Your task to perform on an android device: Go to notification settings Image 0: 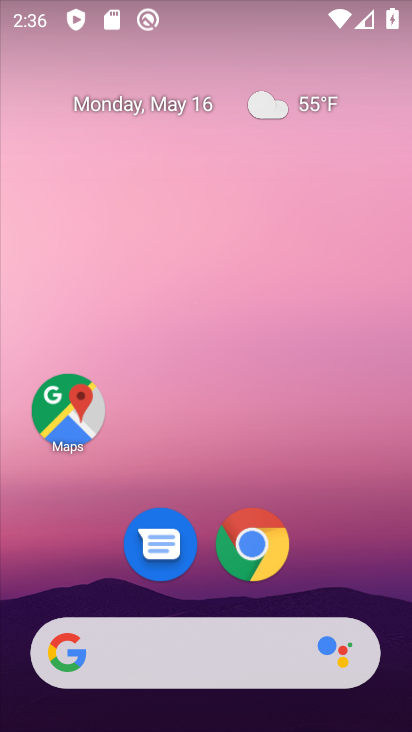
Step 0: drag from (383, 536) to (325, 113)
Your task to perform on an android device: Go to notification settings Image 1: 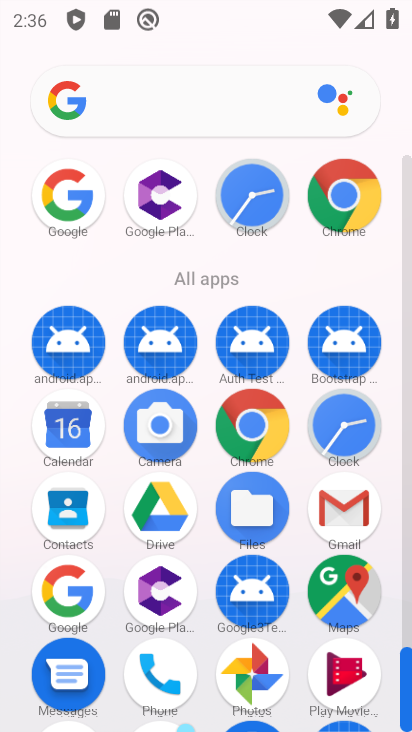
Step 1: drag from (408, 563) to (383, 190)
Your task to perform on an android device: Go to notification settings Image 2: 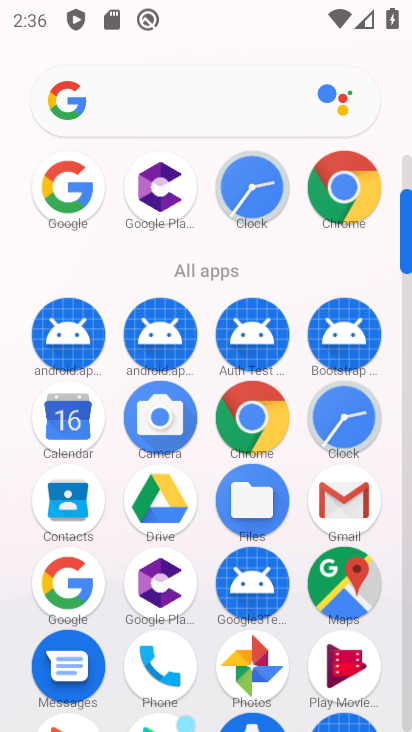
Step 2: drag from (389, 689) to (354, 413)
Your task to perform on an android device: Go to notification settings Image 3: 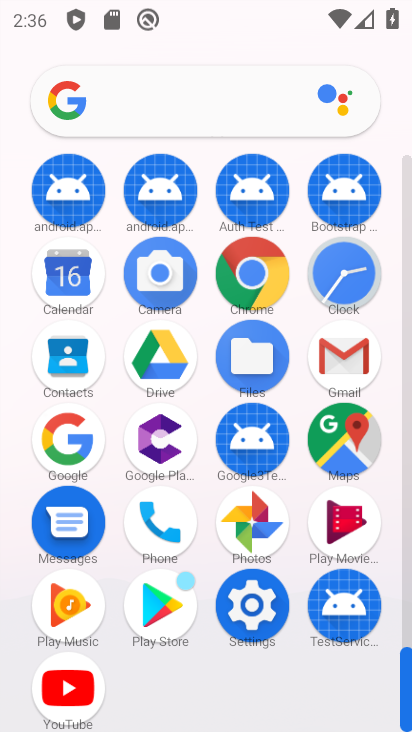
Step 3: click (270, 627)
Your task to perform on an android device: Go to notification settings Image 4: 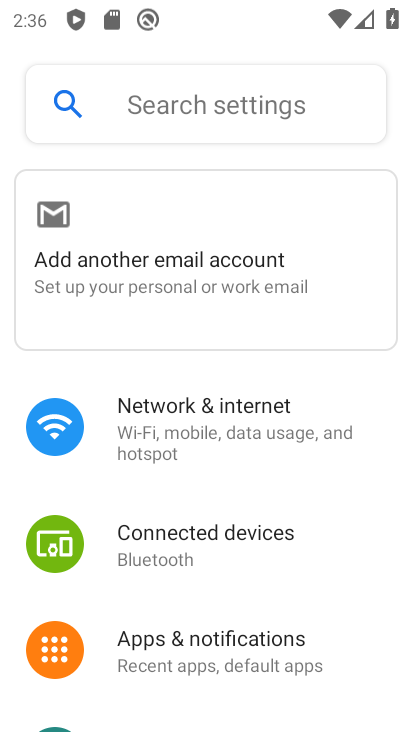
Step 4: click (251, 637)
Your task to perform on an android device: Go to notification settings Image 5: 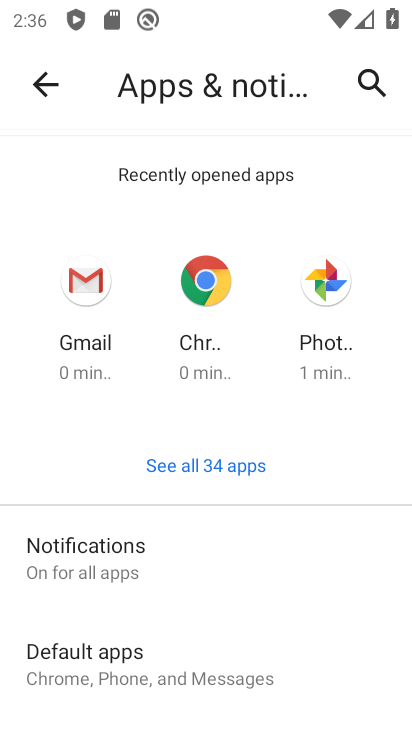
Step 5: drag from (178, 592) to (255, 181)
Your task to perform on an android device: Go to notification settings Image 6: 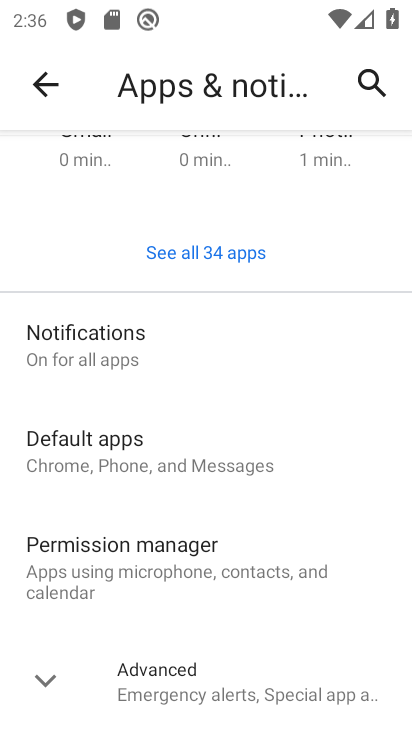
Step 6: drag from (152, 637) to (116, 397)
Your task to perform on an android device: Go to notification settings Image 7: 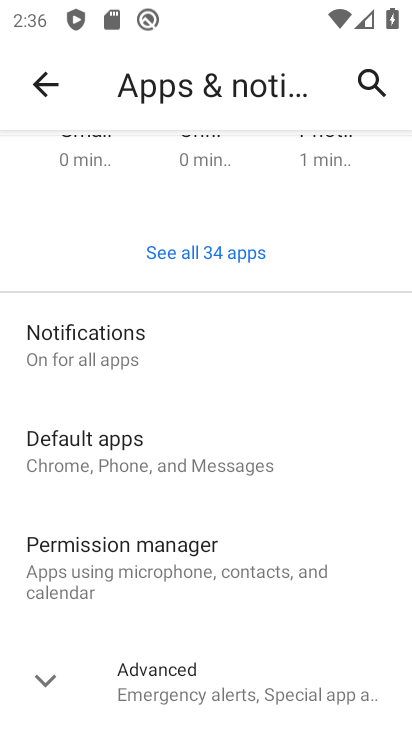
Step 7: click (57, 329)
Your task to perform on an android device: Go to notification settings Image 8: 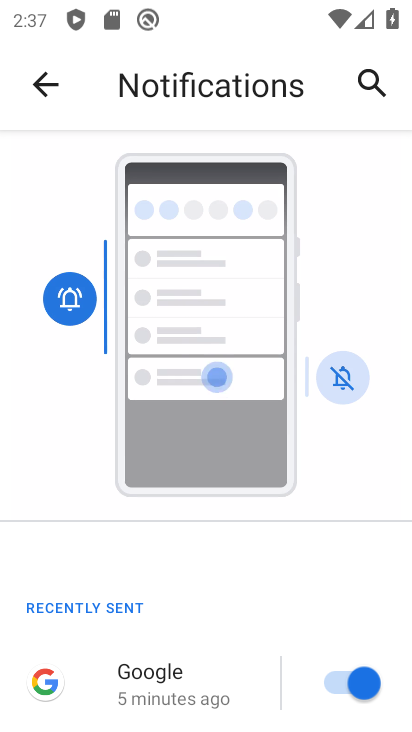
Step 8: drag from (164, 653) to (239, 267)
Your task to perform on an android device: Go to notification settings Image 9: 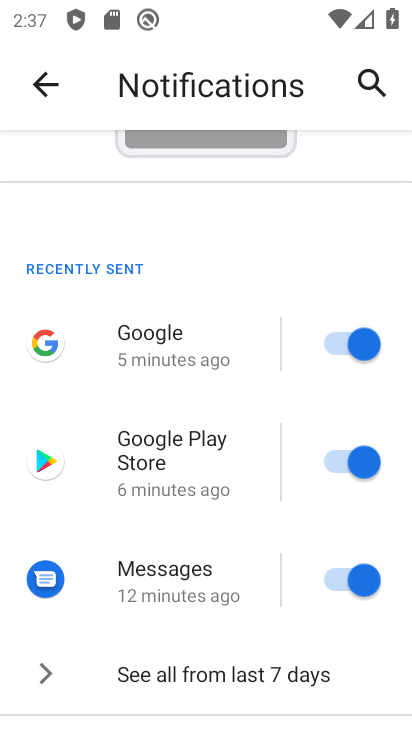
Step 9: drag from (191, 619) to (152, 216)
Your task to perform on an android device: Go to notification settings Image 10: 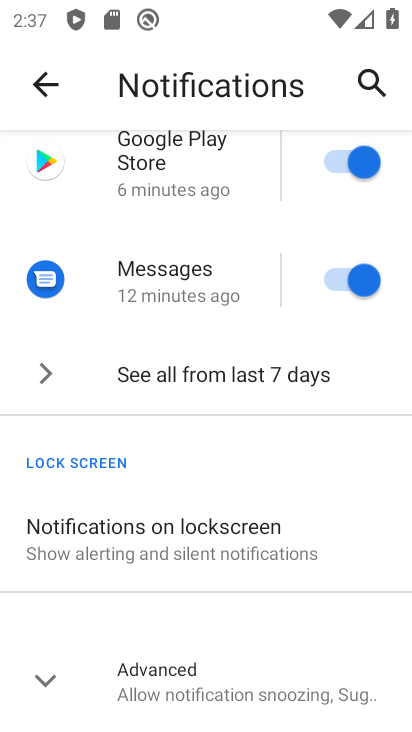
Step 10: drag from (179, 523) to (219, 198)
Your task to perform on an android device: Go to notification settings Image 11: 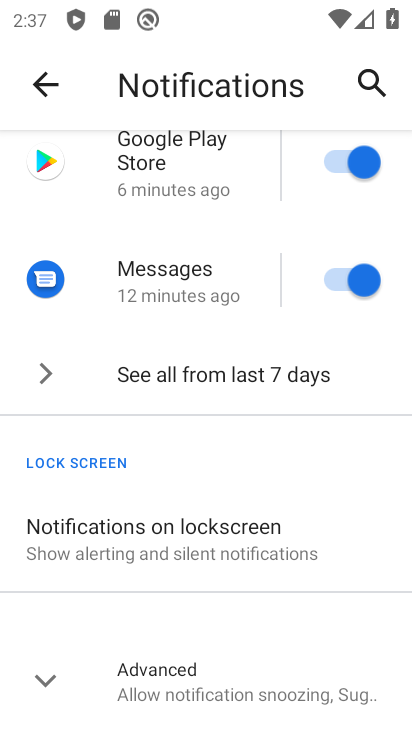
Step 11: click (184, 677)
Your task to perform on an android device: Go to notification settings Image 12: 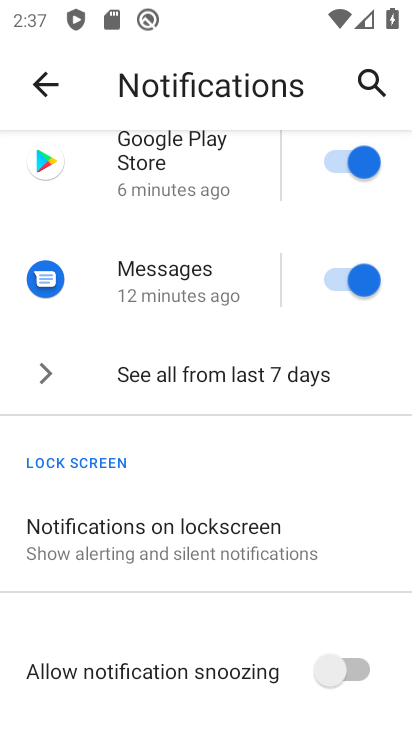
Step 12: task complete